Your task to perform on an android device: Open network settings Image 0: 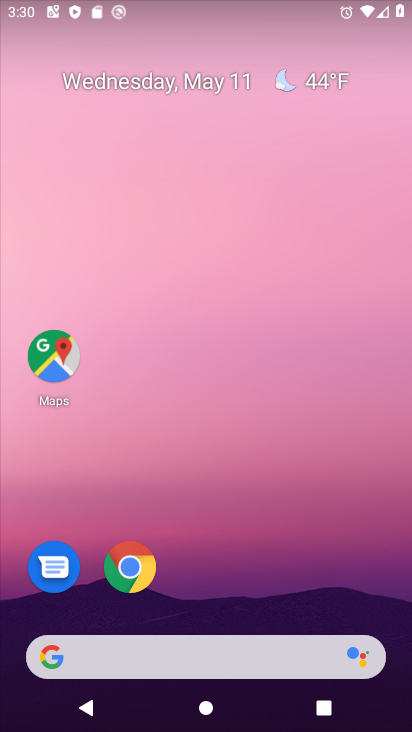
Step 0: drag from (316, 579) to (125, 6)
Your task to perform on an android device: Open network settings Image 1: 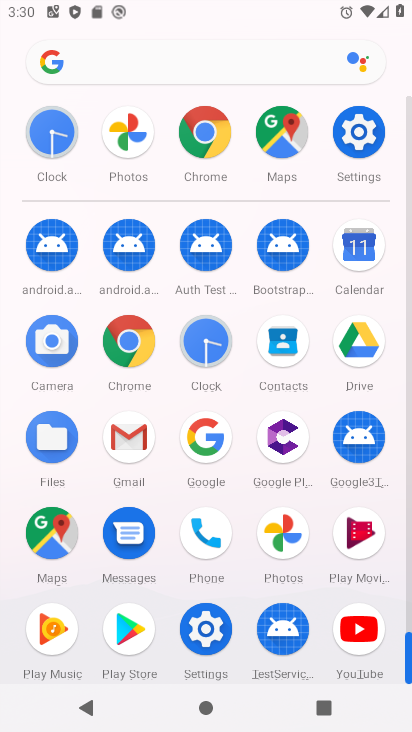
Step 1: click (204, 624)
Your task to perform on an android device: Open network settings Image 2: 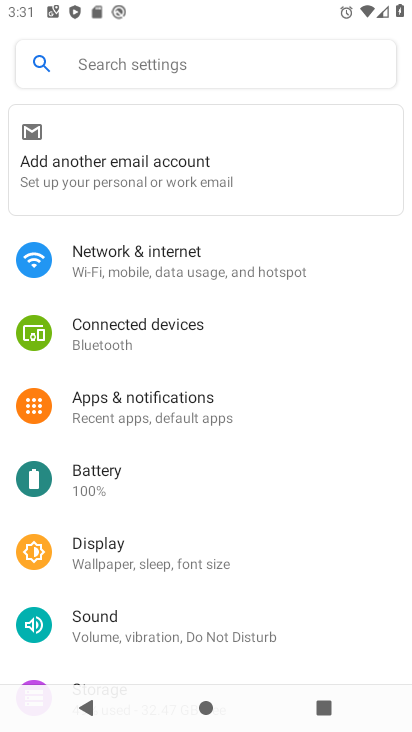
Step 2: click (177, 257)
Your task to perform on an android device: Open network settings Image 3: 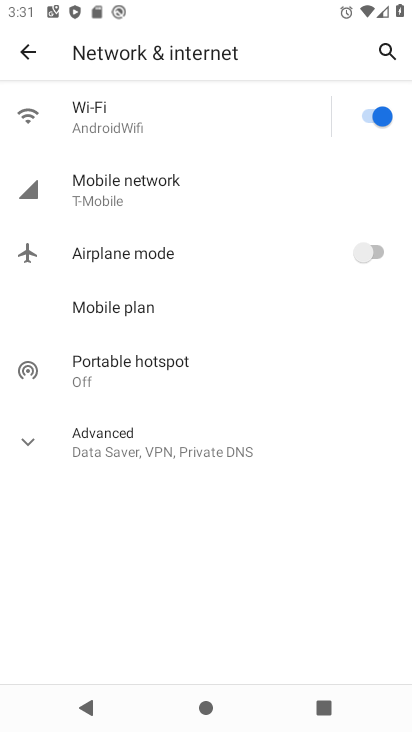
Step 3: click (39, 433)
Your task to perform on an android device: Open network settings Image 4: 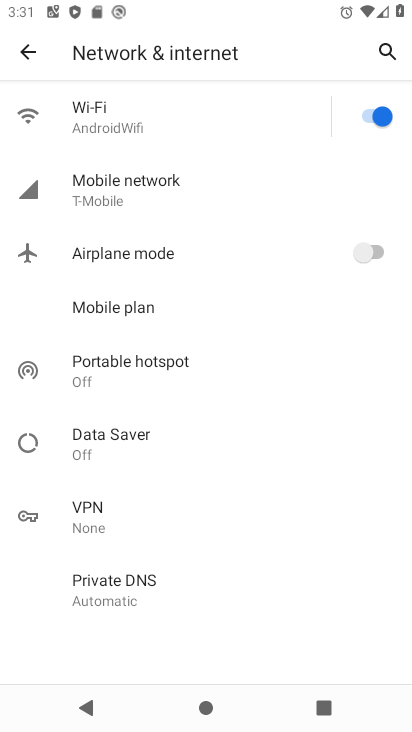
Step 4: task complete